Your task to perform on an android device: Open Google Chrome Image 0: 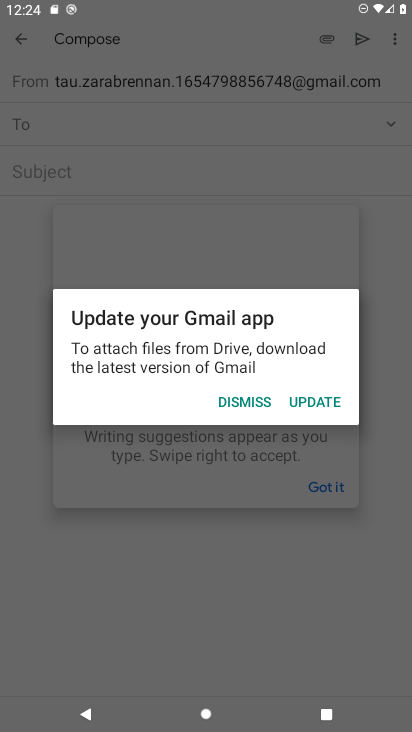
Step 0: press home button
Your task to perform on an android device: Open Google Chrome Image 1: 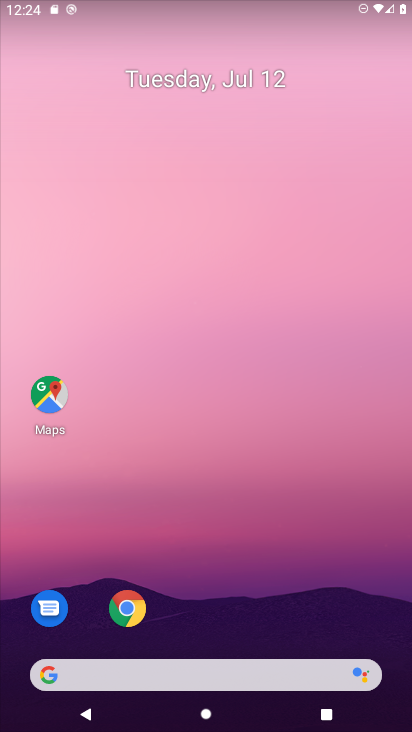
Step 1: click (144, 625)
Your task to perform on an android device: Open Google Chrome Image 2: 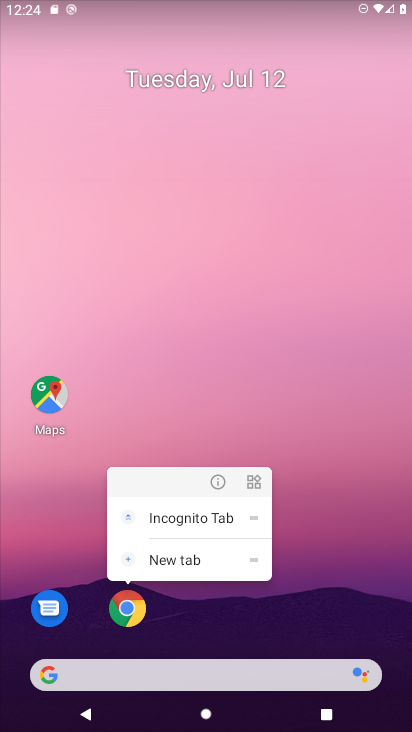
Step 2: click (137, 618)
Your task to perform on an android device: Open Google Chrome Image 3: 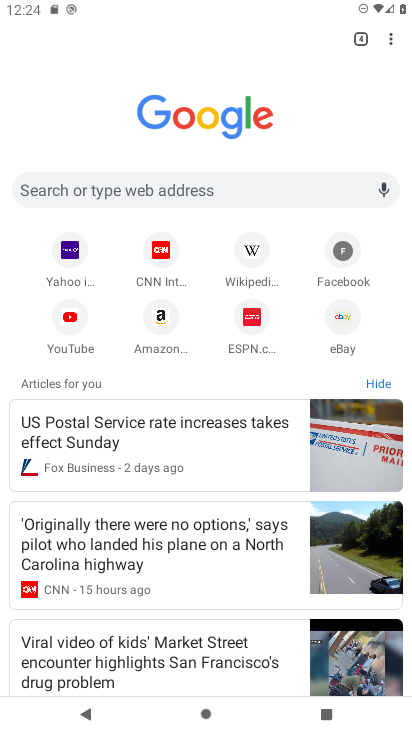
Step 3: task complete